Your task to perform on an android device: open app "Spotify: Music and Podcasts" (install if not already installed) Image 0: 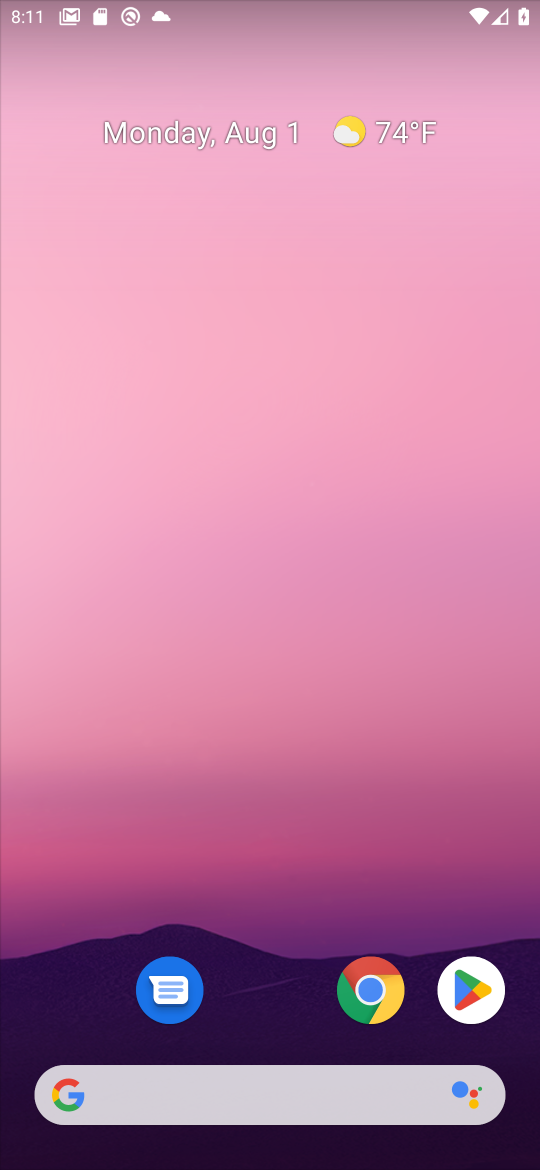
Step 0: press home button
Your task to perform on an android device: open app "Spotify: Music and Podcasts" (install if not already installed) Image 1: 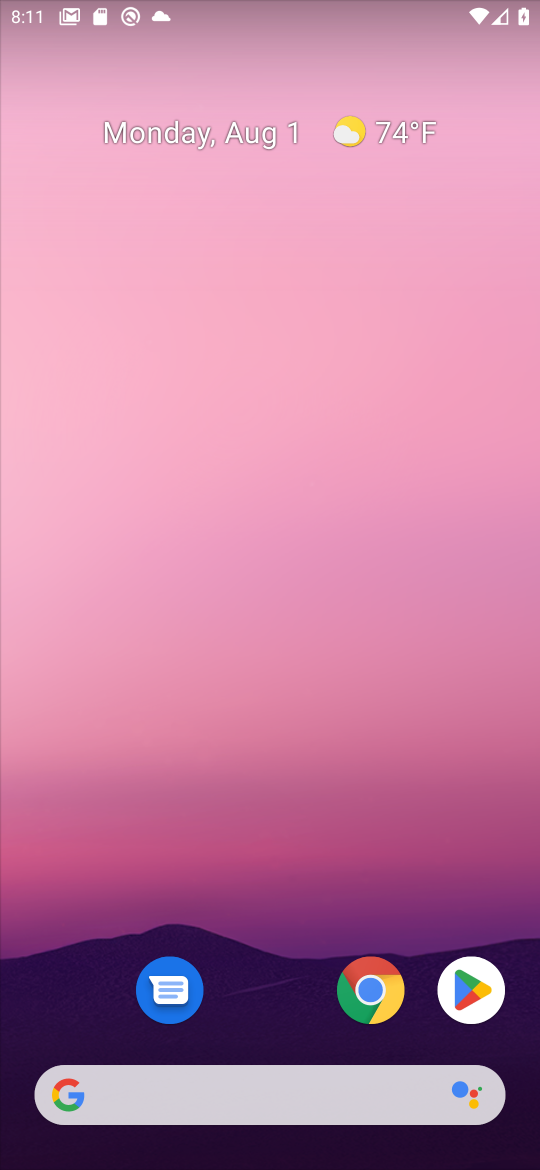
Step 1: click (481, 982)
Your task to perform on an android device: open app "Spotify: Music and Podcasts" (install if not already installed) Image 2: 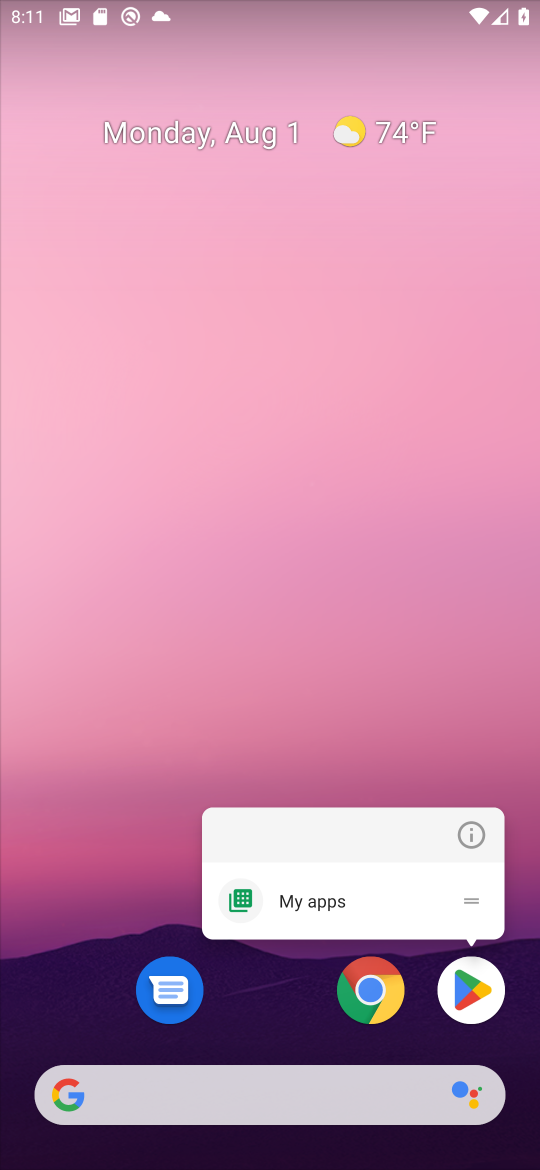
Step 2: click (471, 1002)
Your task to perform on an android device: open app "Spotify: Music and Podcasts" (install if not already installed) Image 3: 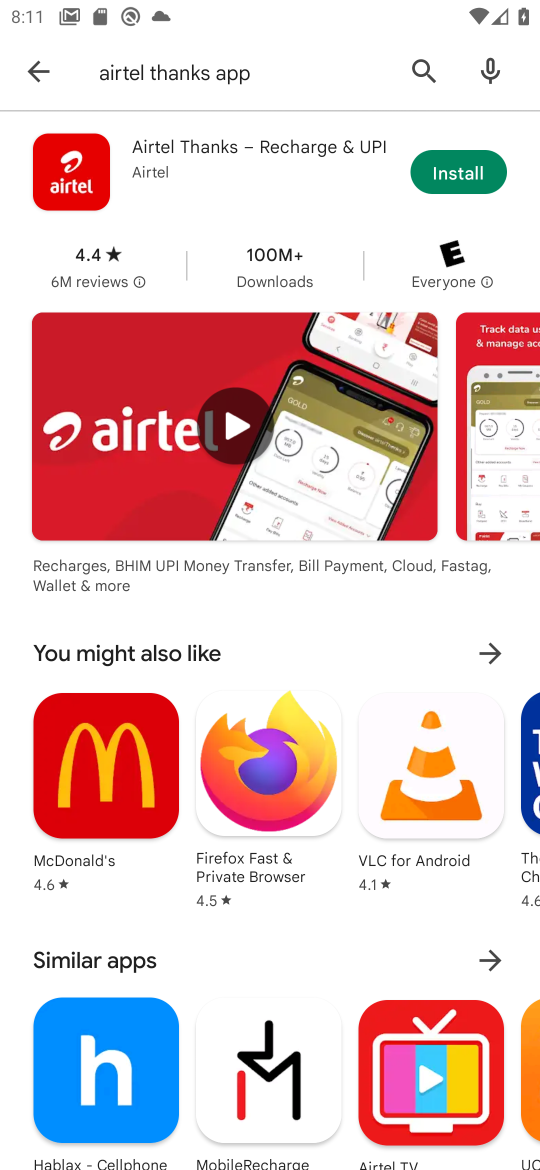
Step 3: click (413, 84)
Your task to perform on an android device: open app "Spotify: Music and Podcasts" (install if not already installed) Image 4: 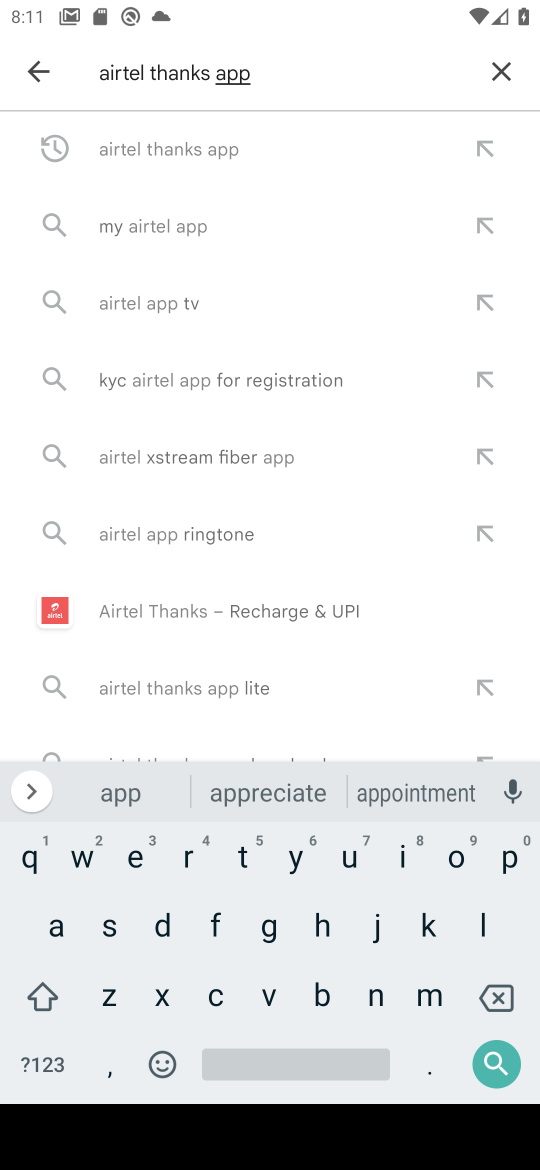
Step 4: click (497, 69)
Your task to perform on an android device: open app "Spotify: Music and Podcasts" (install if not already installed) Image 5: 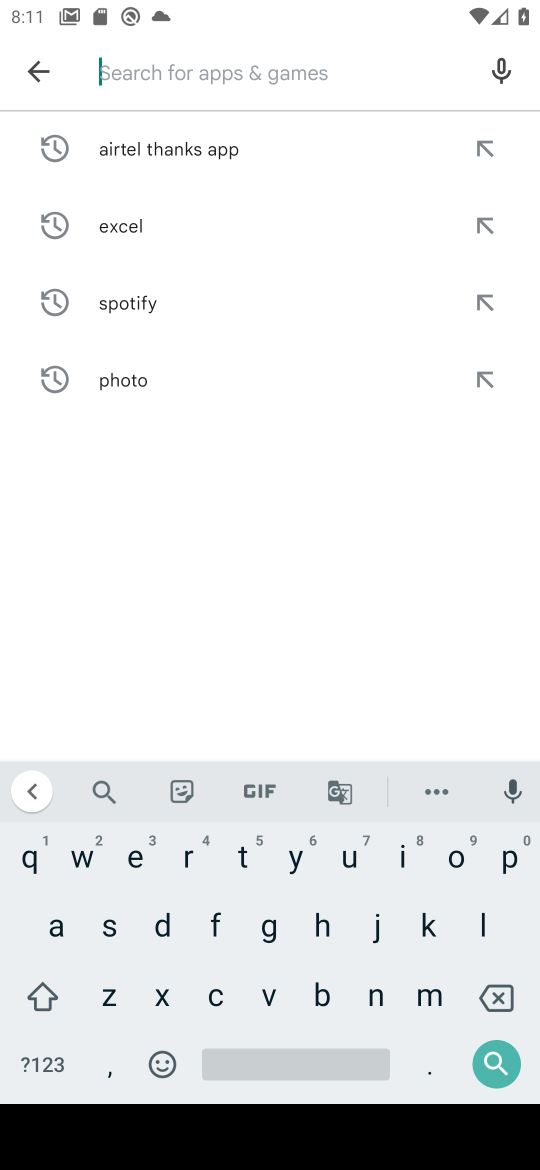
Step 5: click (121, 314)
Your task to perform on an android device: open app "Spotify: Music and Podcasts" (install if not already installed) Image 6: 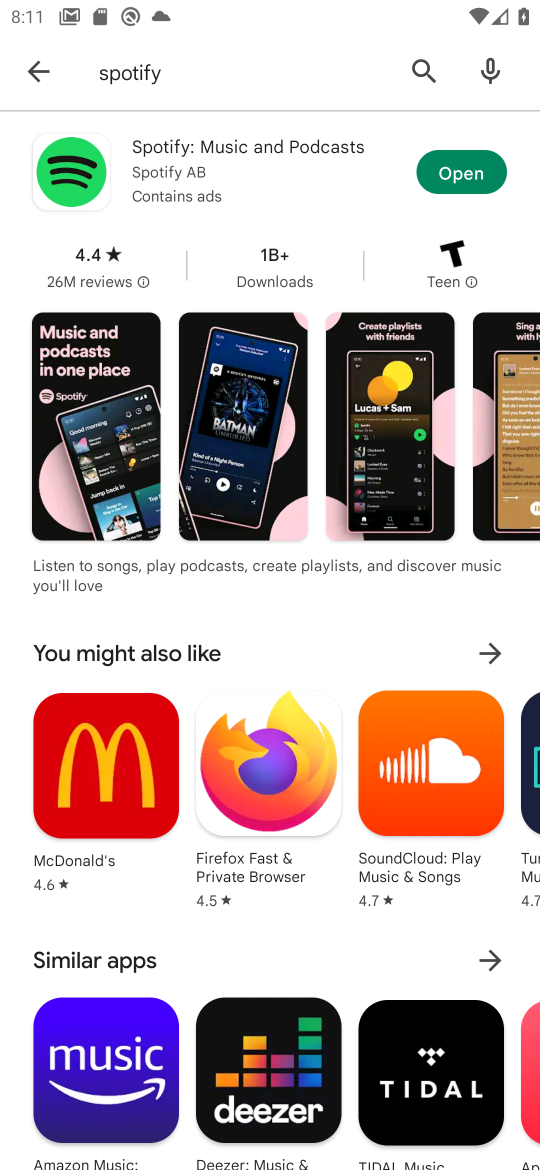
Step 6: click (434, 170)
Your task to perform on an android device: open app "Spotify: Music and Podcasts" (install if not already installed) Image 7: 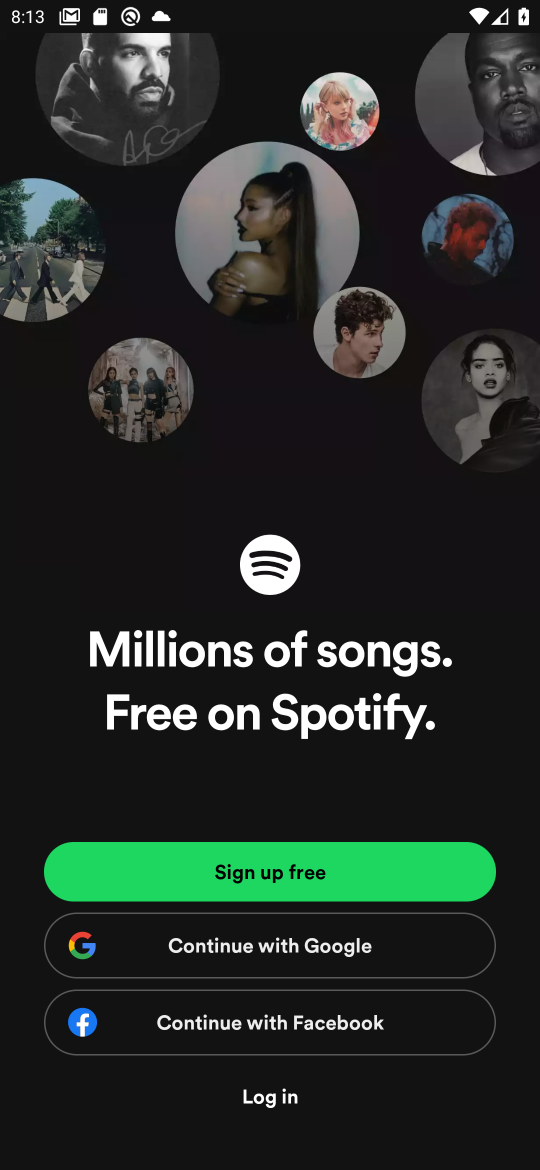
Step 7: task complete